Your task to perform on an android device: change notification settings in the gmail app Image 0: 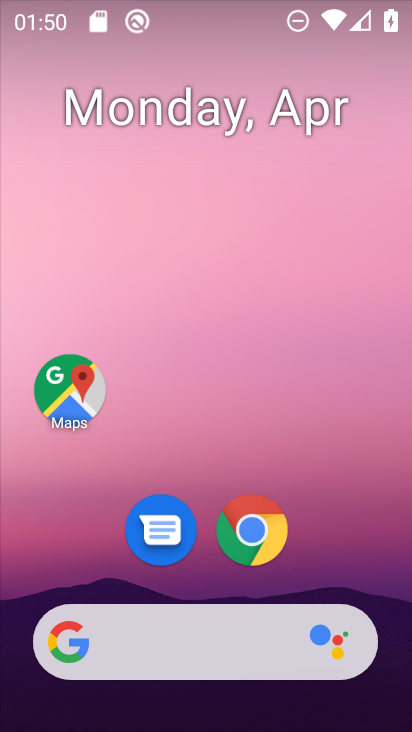
Step 0: drag from (331, 547) to (281, 10)
Your task to perform on an android device: change notification settings in the gmail app Image 1: 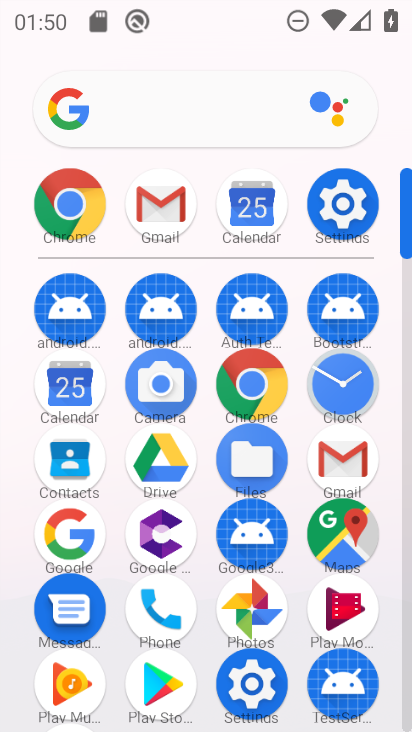
Step 1: click (167, 196)
Your task to perform on an android device: change notification settings in the gmail app Image 2: 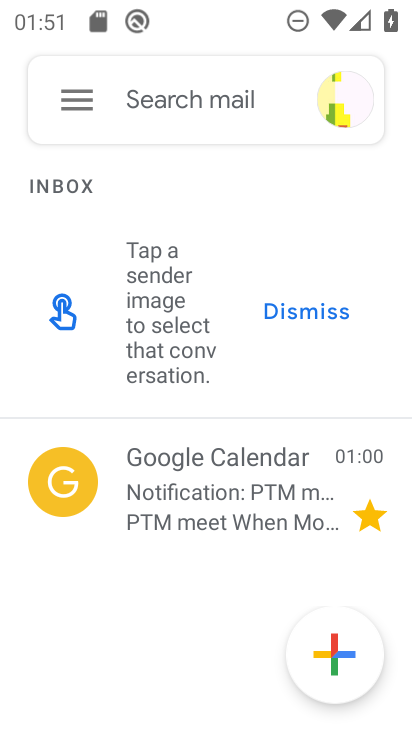
Step 2: click (74, 102)
Your task to perform on an android device: change notification settings in the gmail app Image 3: 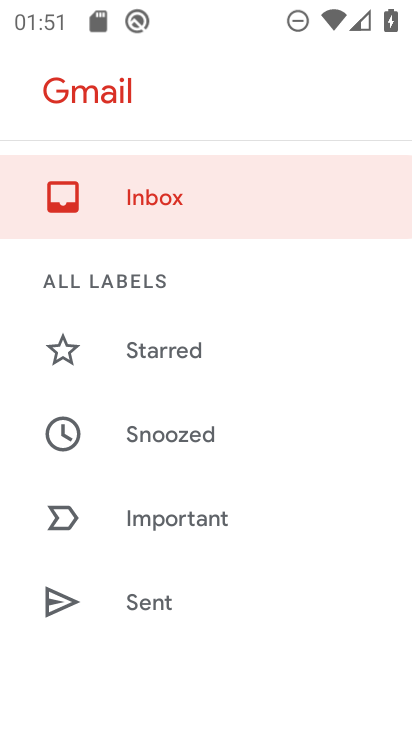
Step 3: drag from (213, 586) to (180, 212)
Your task to perform on an android device: change notification settings in the gmail app Image 4: 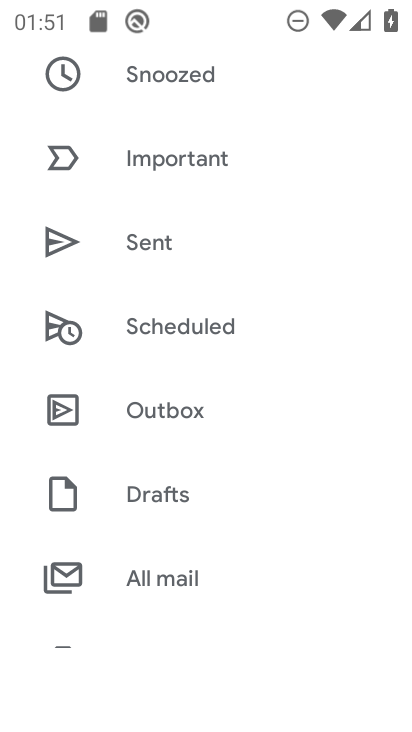
Step 4: drag from (222, 533) to (151, 152)
Your task to perform on an android device: change notification settings in the gmail app Image 5: 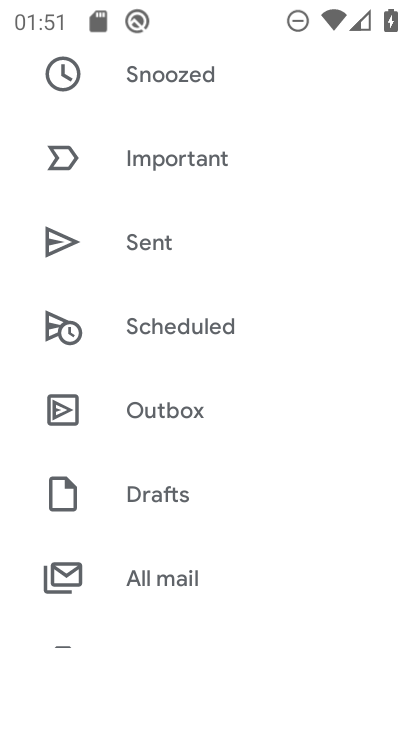
Step 5: drag from (199, 565) to (125, 58)
Your task to perform on an android device: change notification settings in the gmail app Image 6: 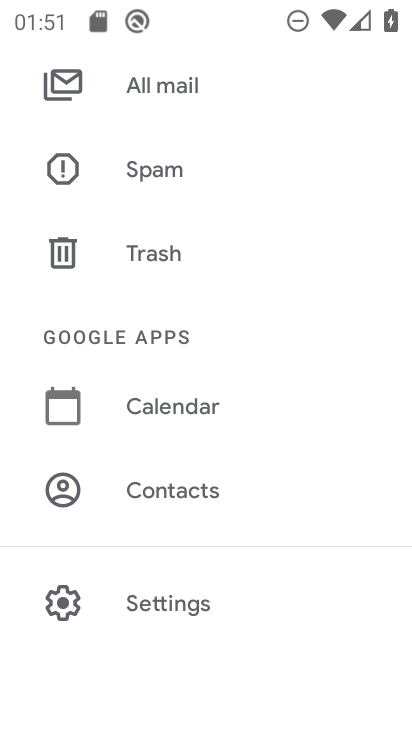
Step 6: click (165, 603)
Your task to perform on an android device: change notification settings in the gmail app Image 7: 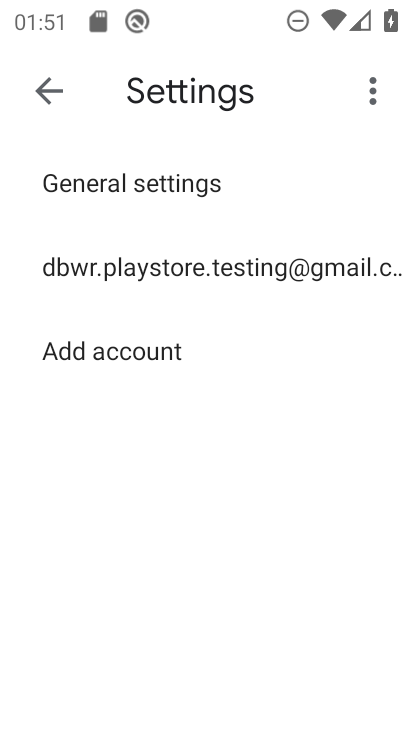
Step 7: click (117, 178)
Your task to perform on an android device: change notification settings in the gmail app Image 8: 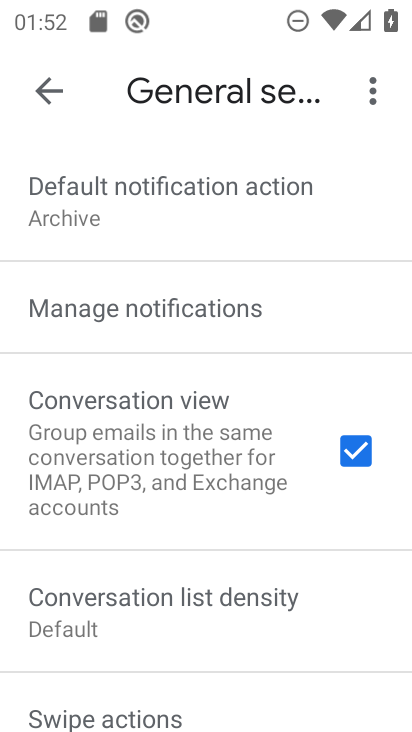
Step 8: click (159, 296)
Your task to perform on an android device: change notification settings in the gmail app Image 9: 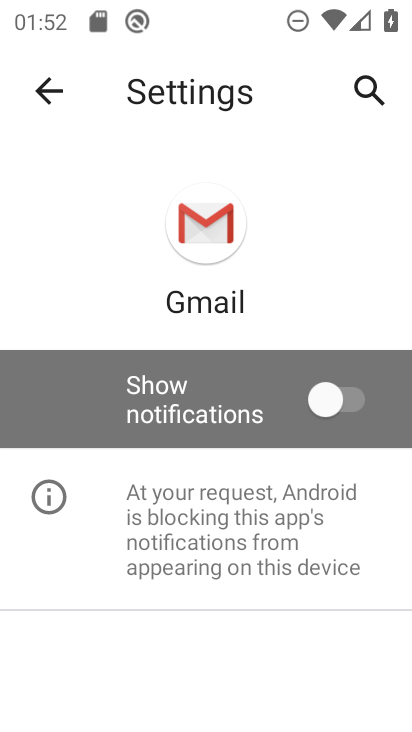
Step 9: click (330, 406)
Your task to perform on an android device: change notification settings in the gmail app Image 10: 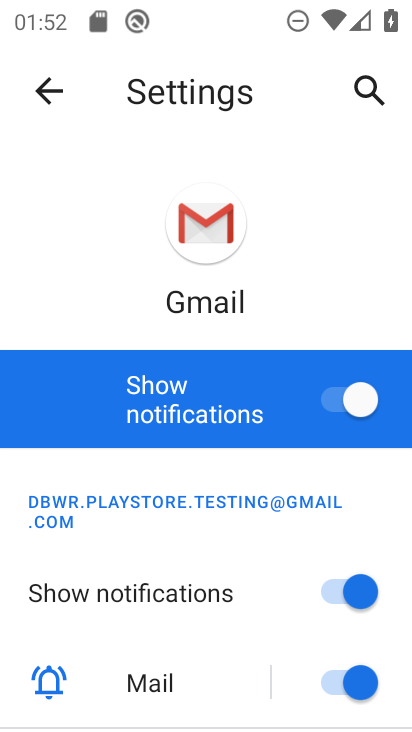
Step 10: task complete